Your task to perform on an android device: see sites visited before in the chrome app Image 0: 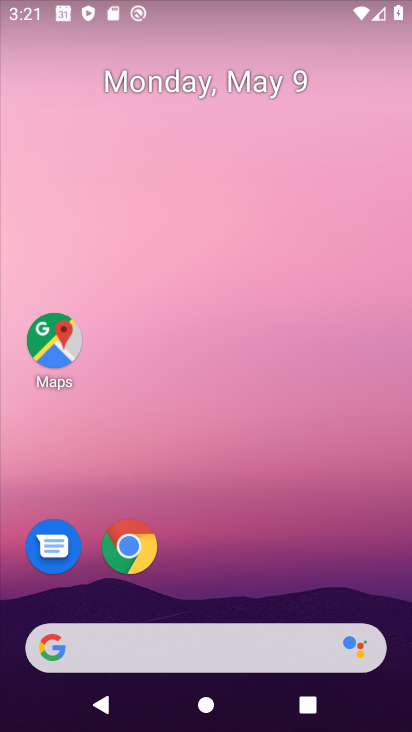
Step 0: drag from (328, 554) to (248, 118)
Your task to perform on an android device: see sites visited before in the chrome app Image 1: 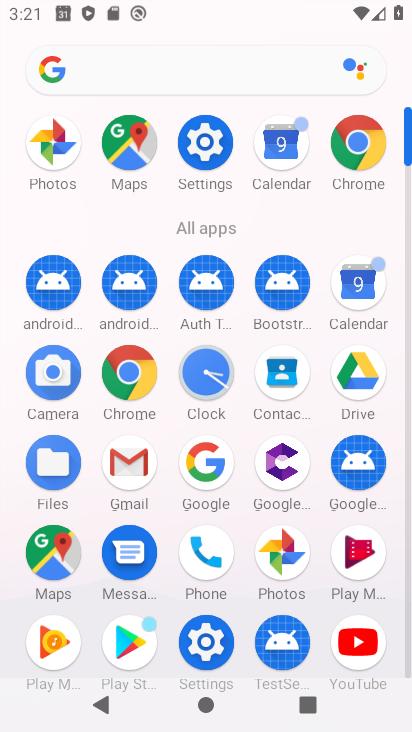
Step 1: click (354, 167)
Your task to perform on an android device: see sites visited before in the chrome app Image 2: 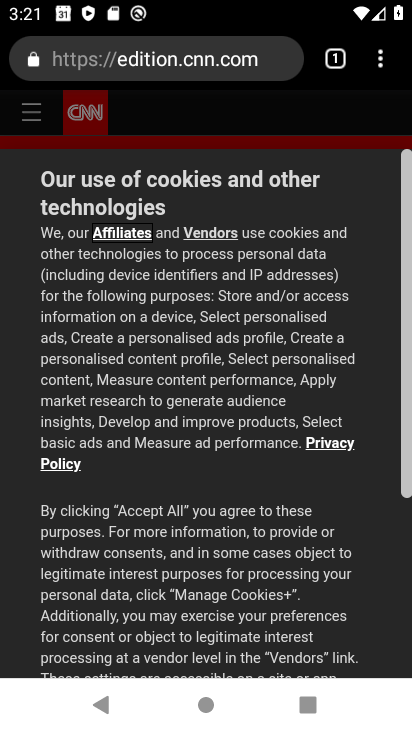
Step 2: drag from (385, 57) to (167, 266)
Your task to perform on an android device: see sites visited before in the chrome app Image 3: 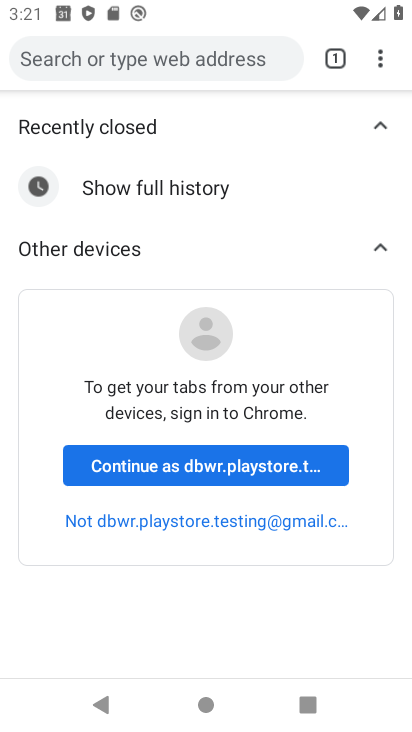
Step 3: click (208, 478)
Your task to perform on an android device: see sites visited before in the chrome app Image 4: 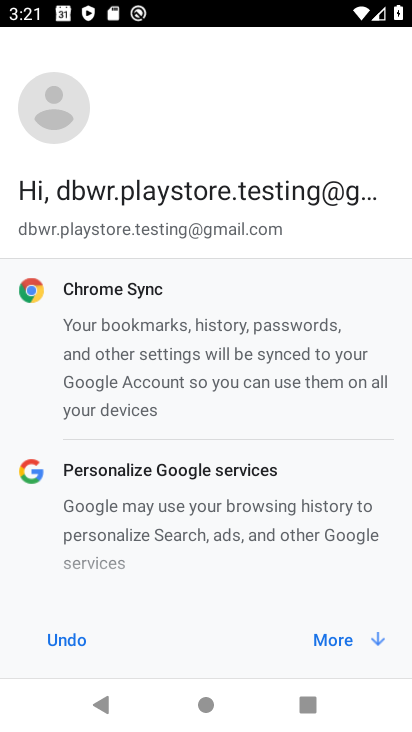
Step 4: click (341, 645)
Your task to perform on an android device: see sites visited before in the chrome app Image 5: 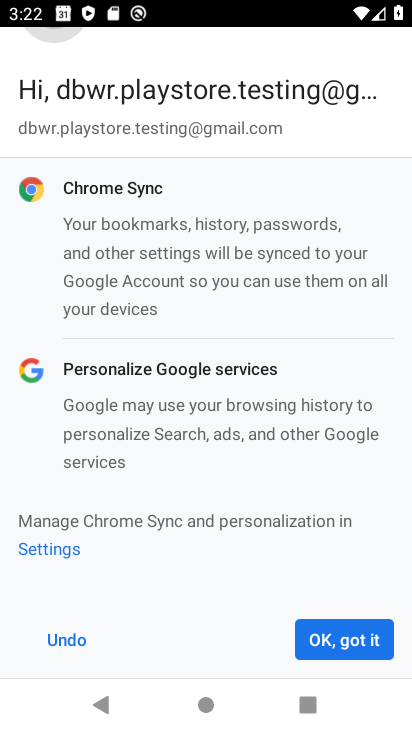
Step 5: click (351, 643)
Your task to perform on an android device: see sites visited before in the chrome app Image 6: 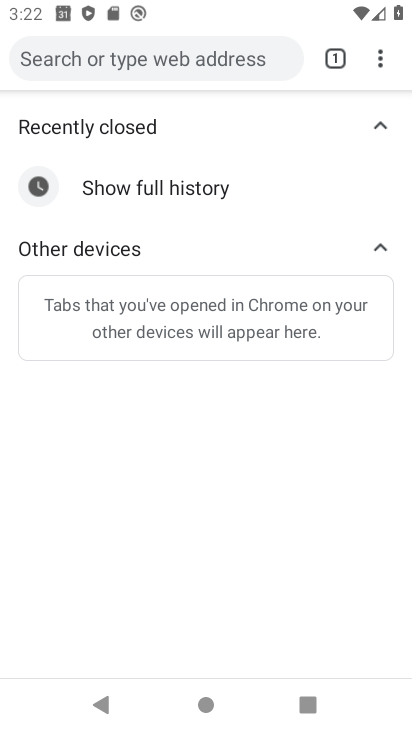
Step 6: task complete